Your task to perform on an android device: Go to Google maps Image 0: 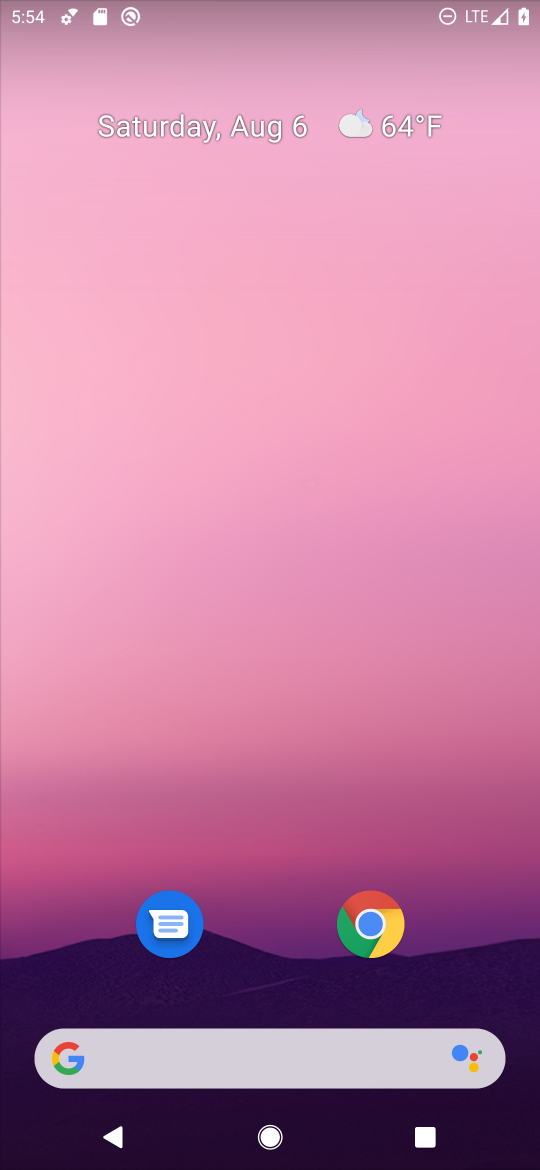
Step 0: drag from (269, 949) to (239, 135)
Your task to perform on an android device: Go to Google maps Image 1: 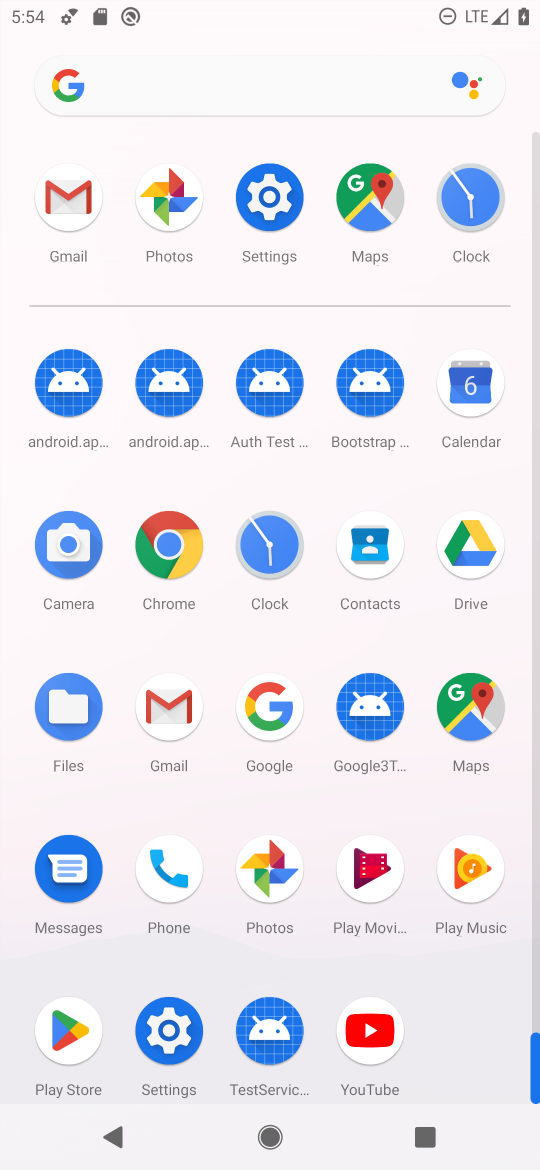
Step 1: click (389, 195)
Your task to perform on an android device: Go to Google maps Image 2: 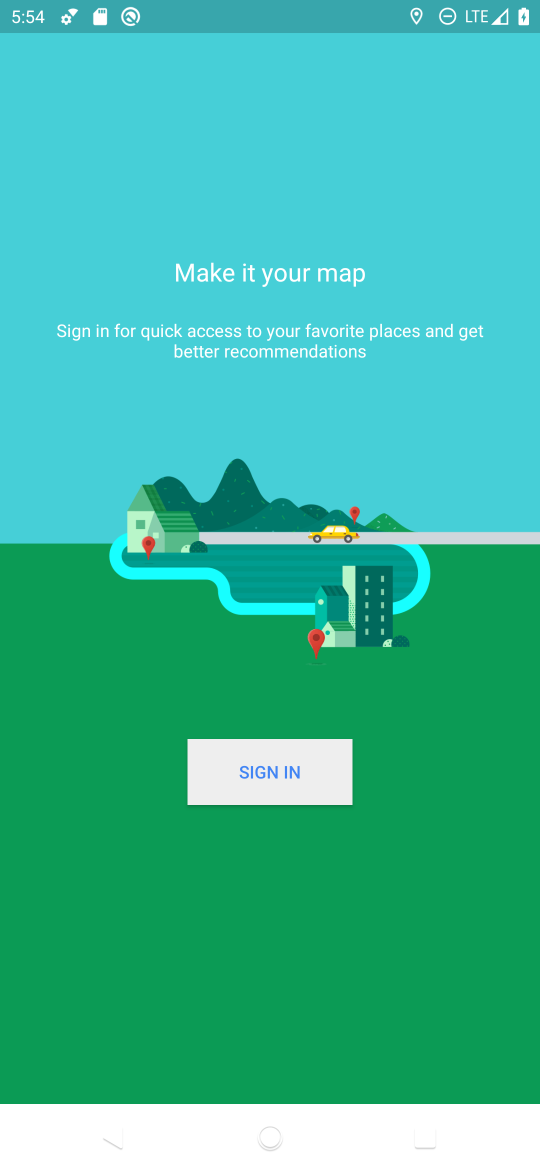
Step 2: task complete